Your task to perform on an android device: Open calendar and show me the third week of next month Image 0: 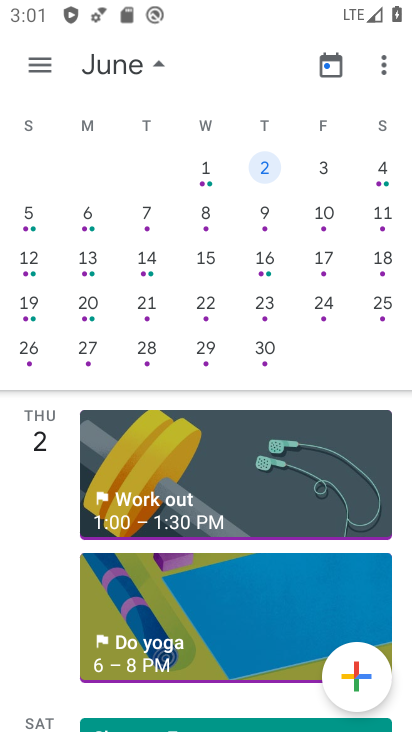
Step 0: click (256, 265)
Your task to perform on an android device: Open calendar and show me the third week of next month Image 1: 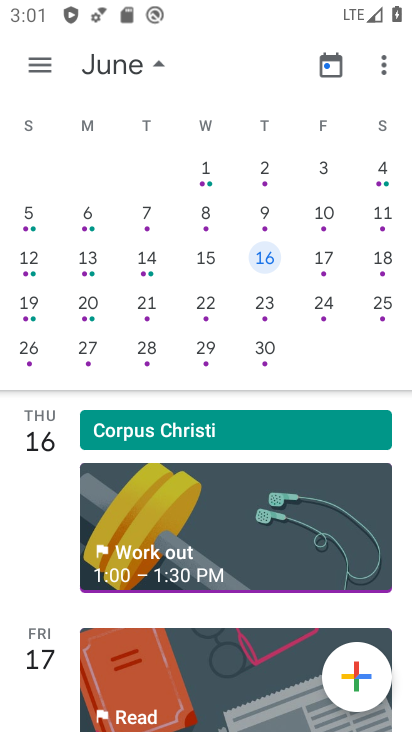
Step 1: task complete